Your task to perform on an android device: Search for Mexican restaurants on Maps Image 0: 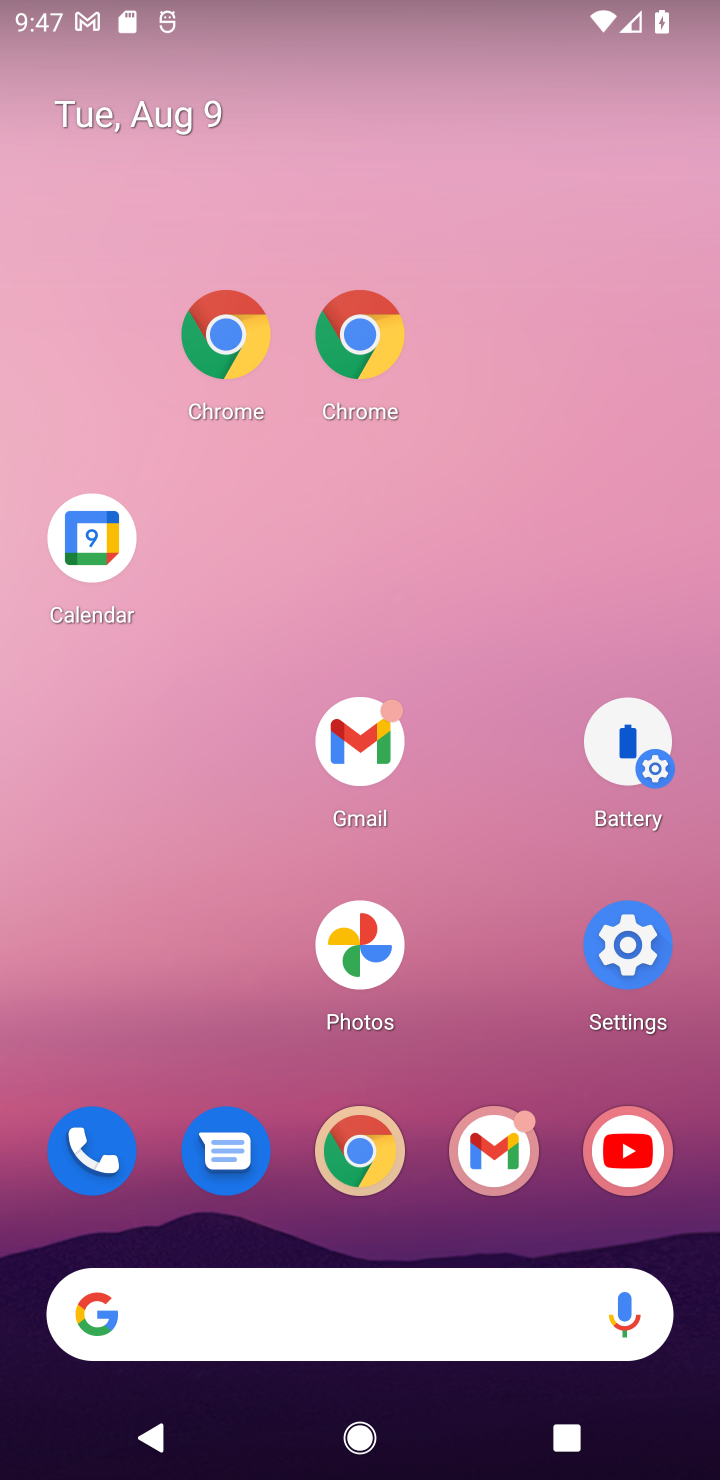
Step 0: click (340, 388)
Your task to perform on an android device: Search for Mexican restaurants on Maps Image 1: 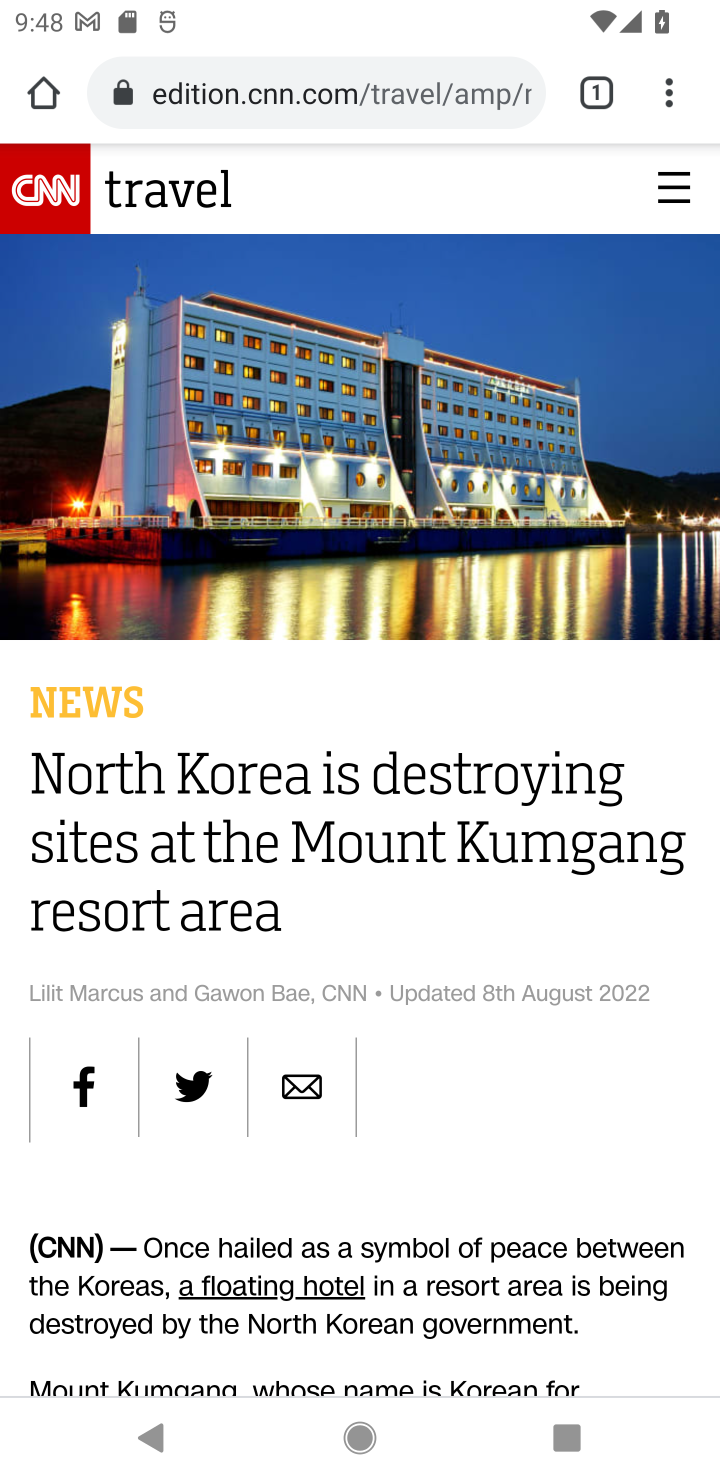
Step 1: press home button
Your task to perform on an android device: Search for Mexican restaurants on Maps Image 2: 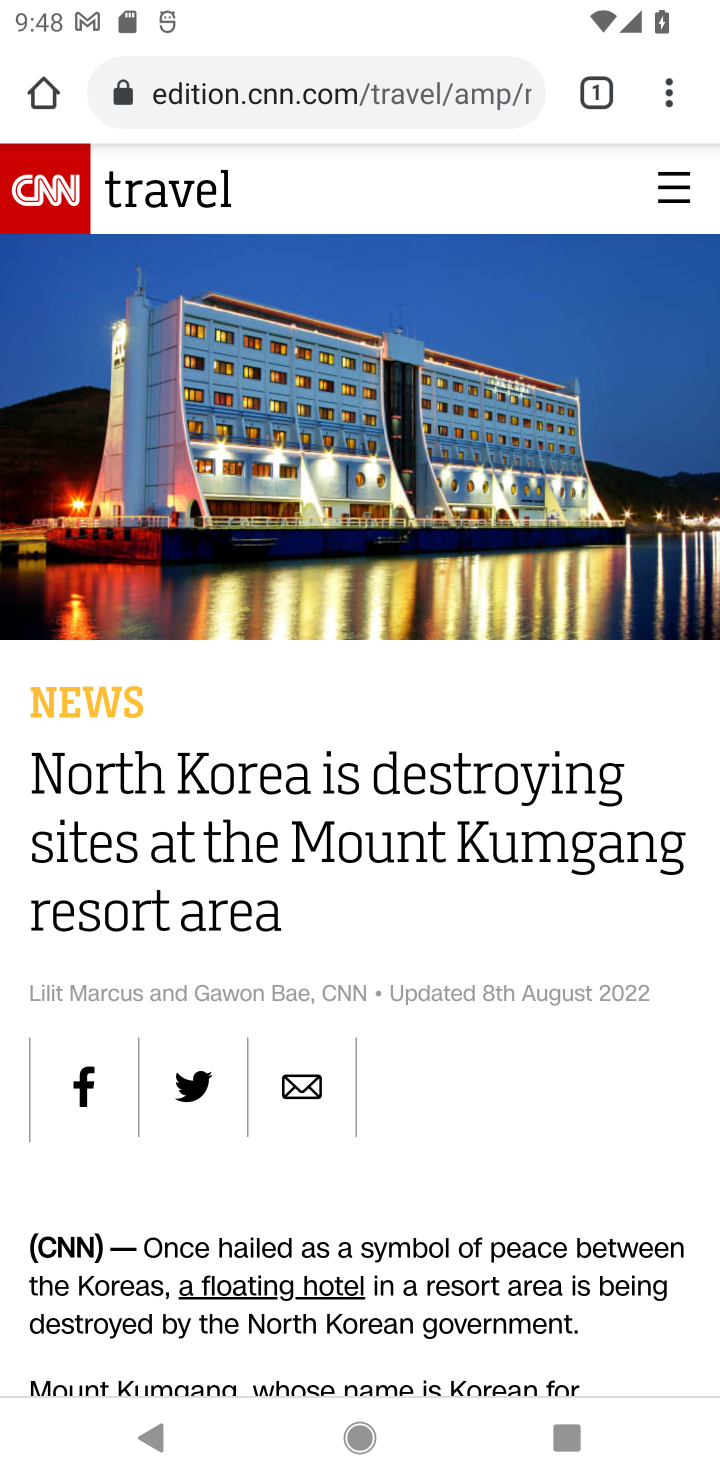
Step 2: press home button
Your task to perform on an android device: Search for Mexican restaurants on Maps Image 3: 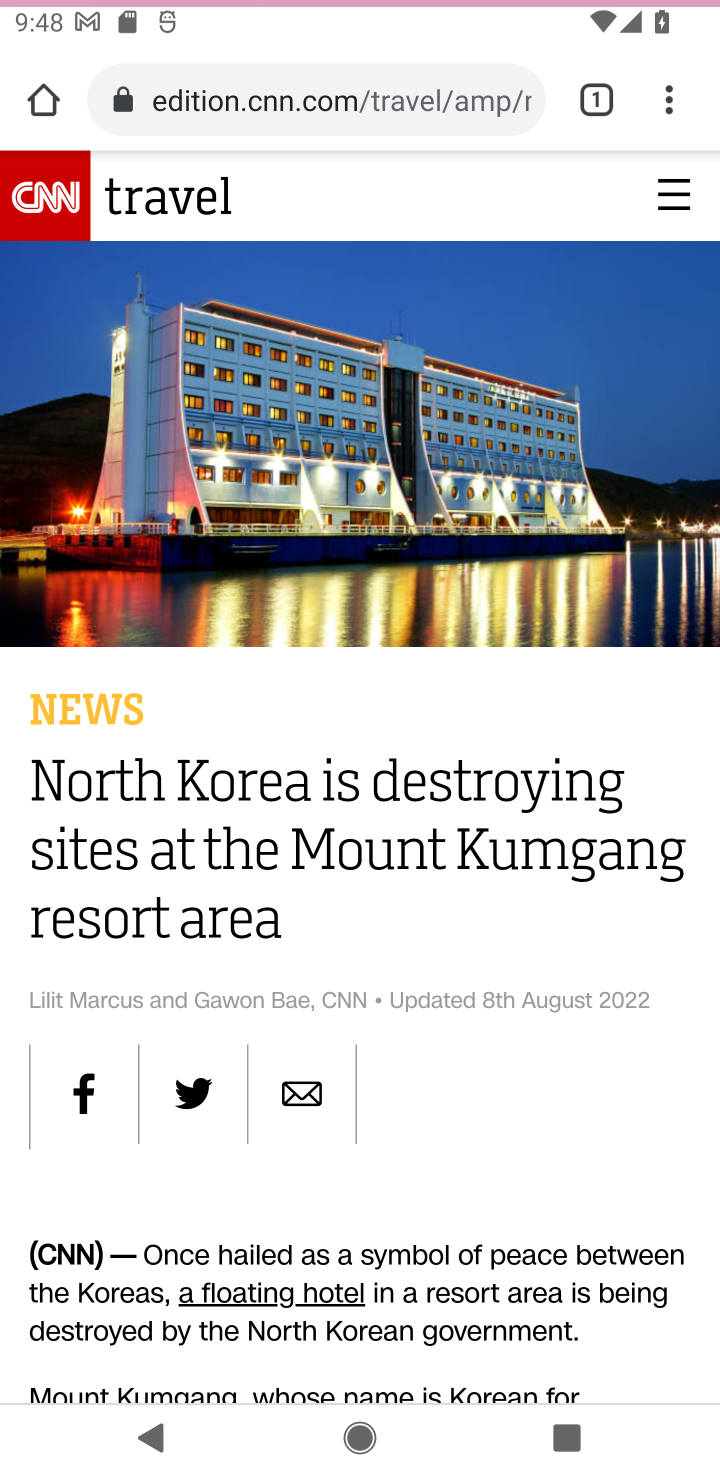
Step 3: press back button
Your task to perform on an android device: Search for Mexican restaurants on Maps Image 4: 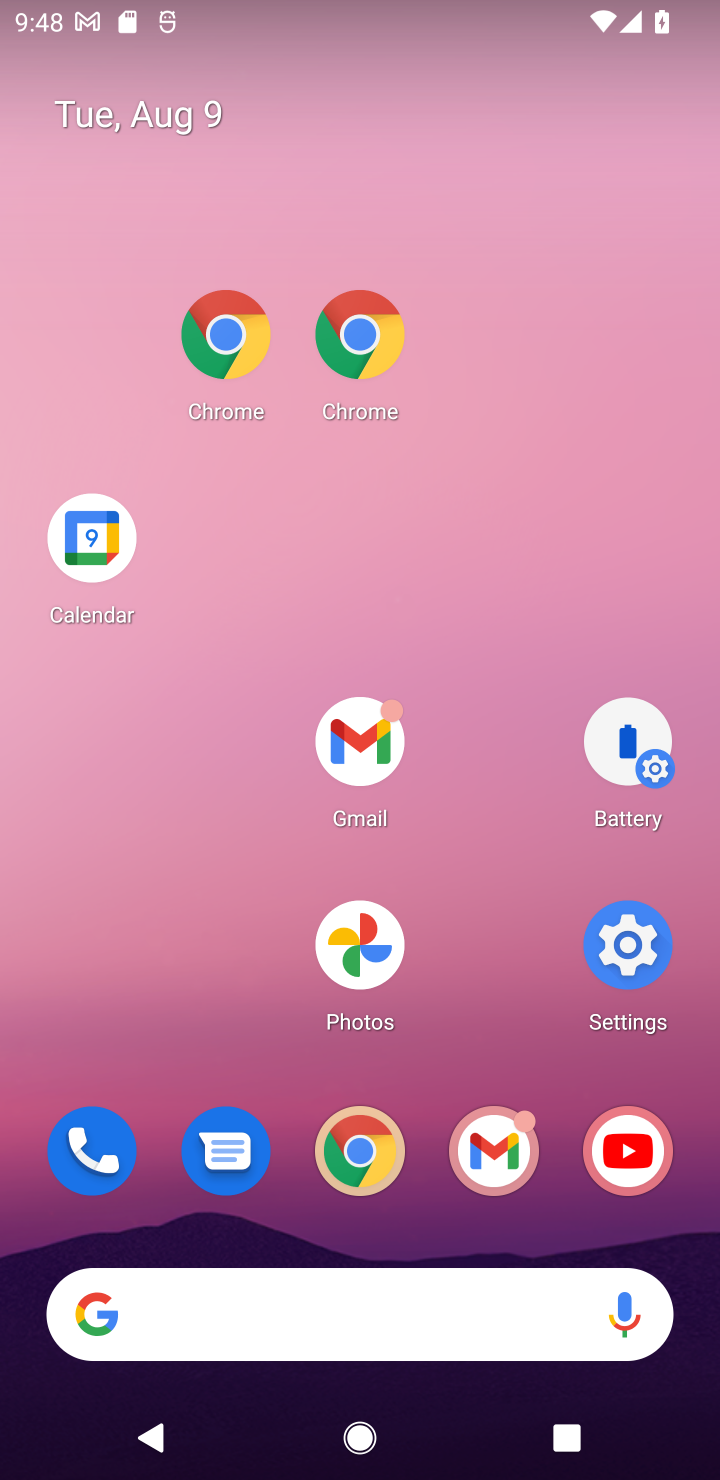
Step 4: press back button
Your task to perform on an android device: Search for Mexican restaurants on Maps Image 5: 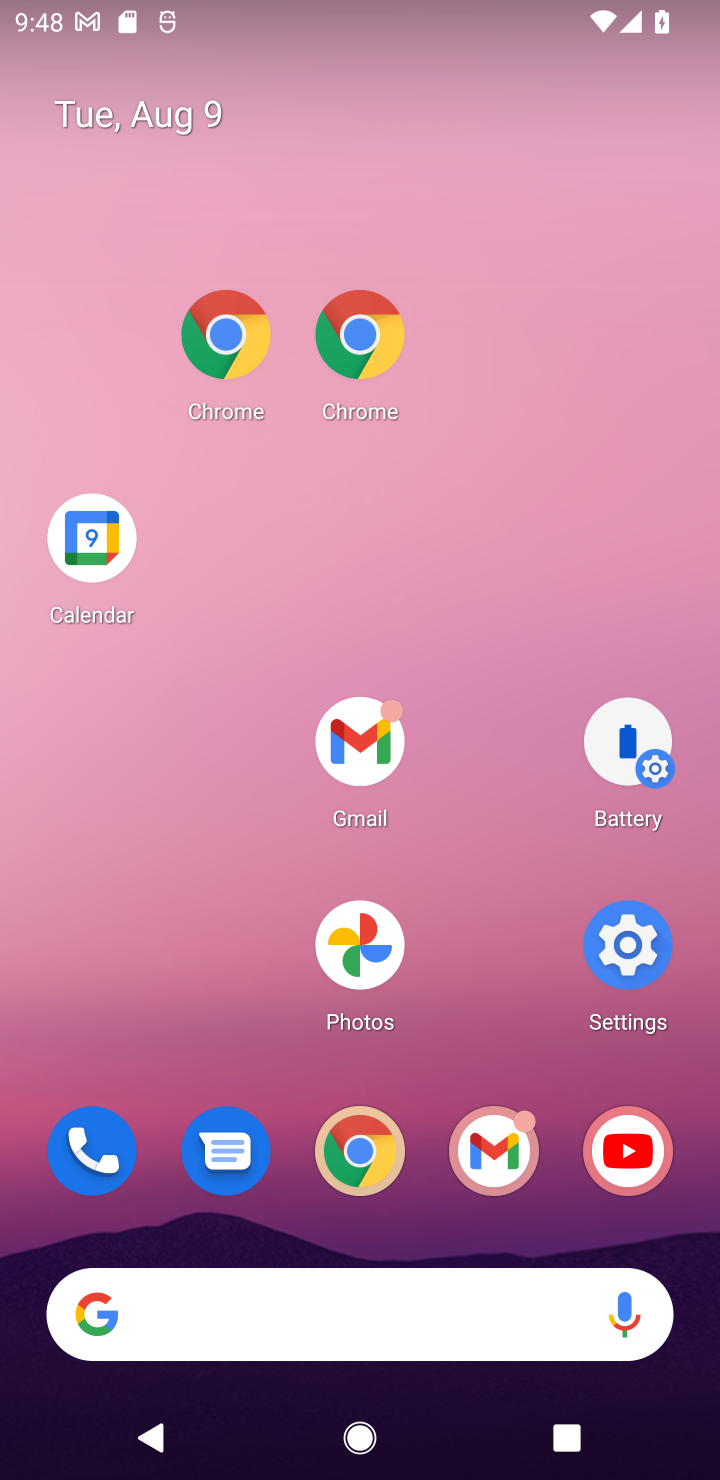
Step 5: drag from (305, 624) to (230, 748)
Your task to perform on an android device: Search for Mexican restaurants on Maps Image 6: 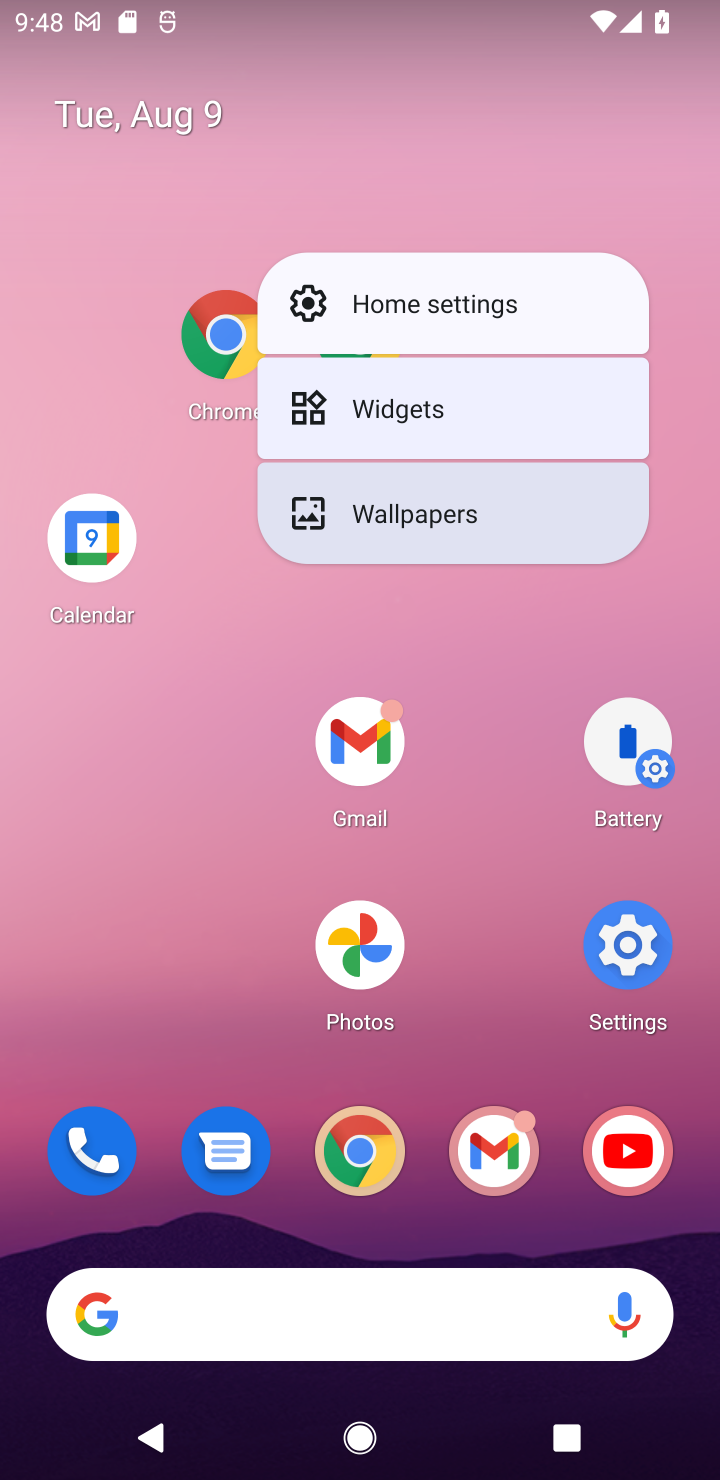
Step 6: drag from (396, 630) to (465, 628)
Your task to perform on an android device: Search for Mexican restaurants on Maps Image 7: 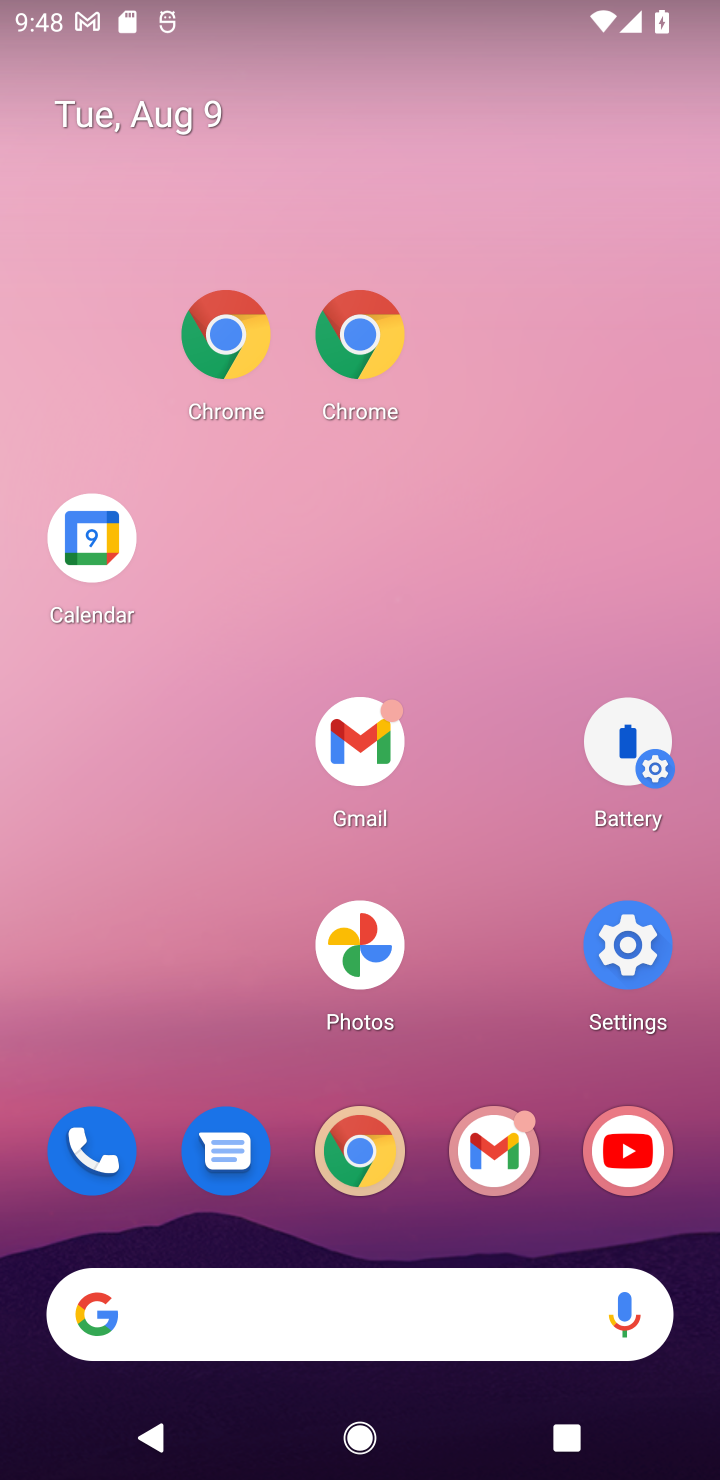
Step 7: press back button
Your task to perform on an android device: Search for Mexican restaurants on Maps Image 8: 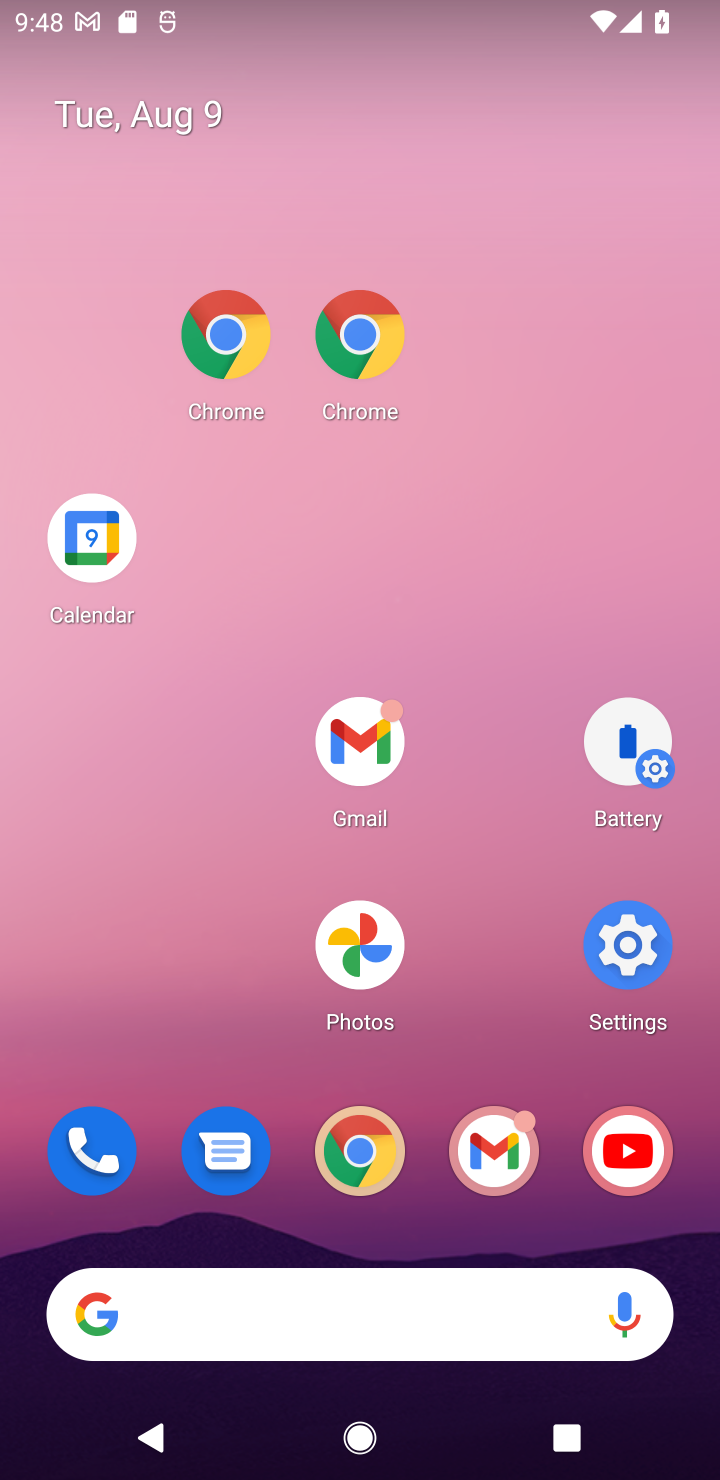
Step 8: press home button
Your task to perform on an android device: Search for Mexican restaurants on Maps Image 9: 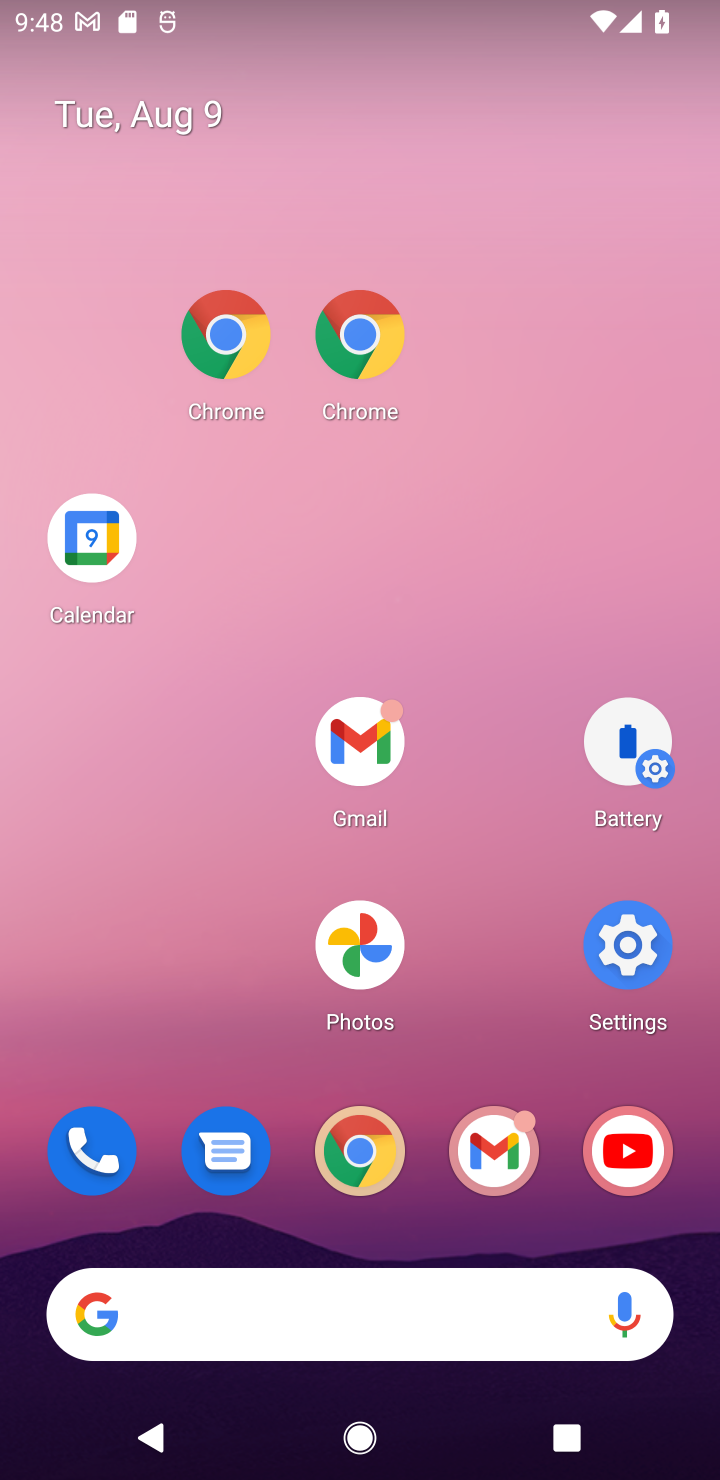
Step 9: drag from (343, 51) to (179, 229)
Your task to perform on an android device: Search for Mexican restaurants on Maps Image 10: 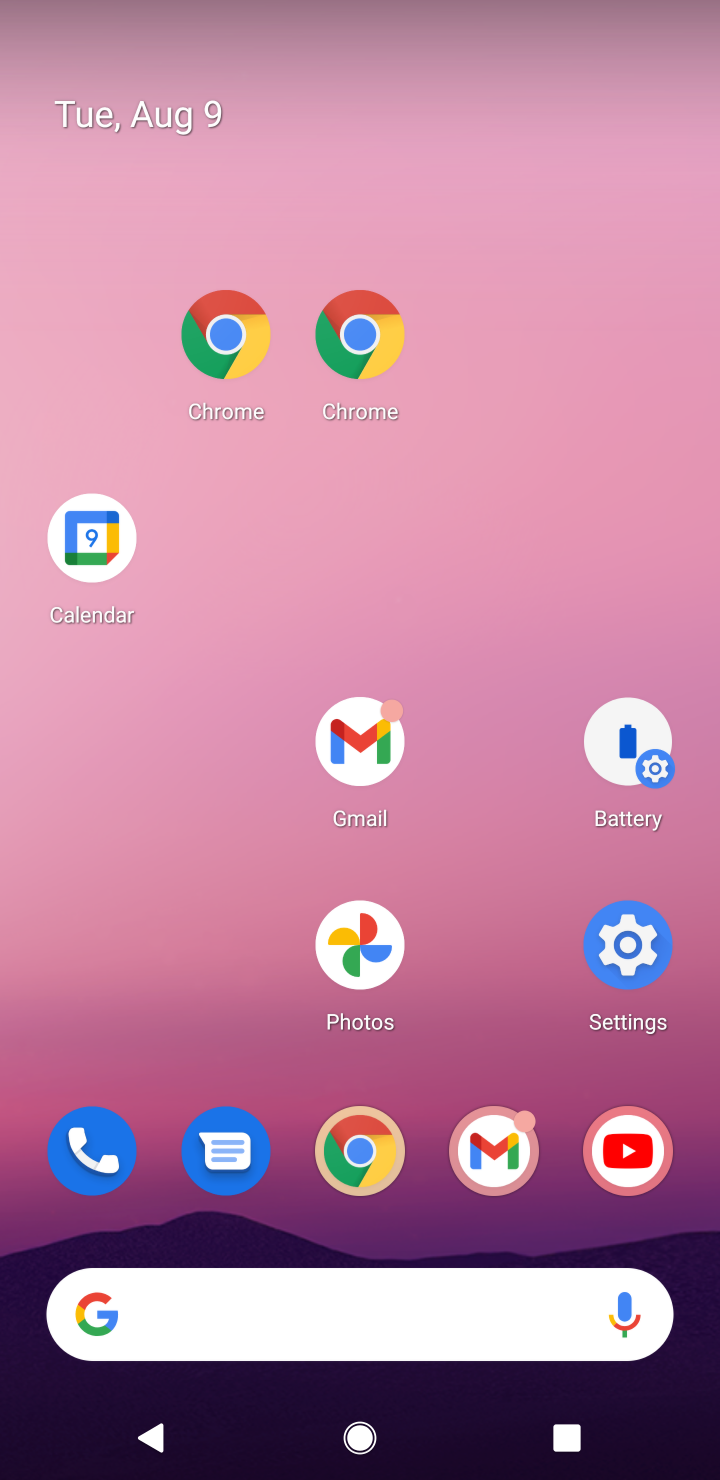
Step 10: click (421, 308)
Your task to perform on an android device: Search for Mexican restaurants on Maps Image 11: 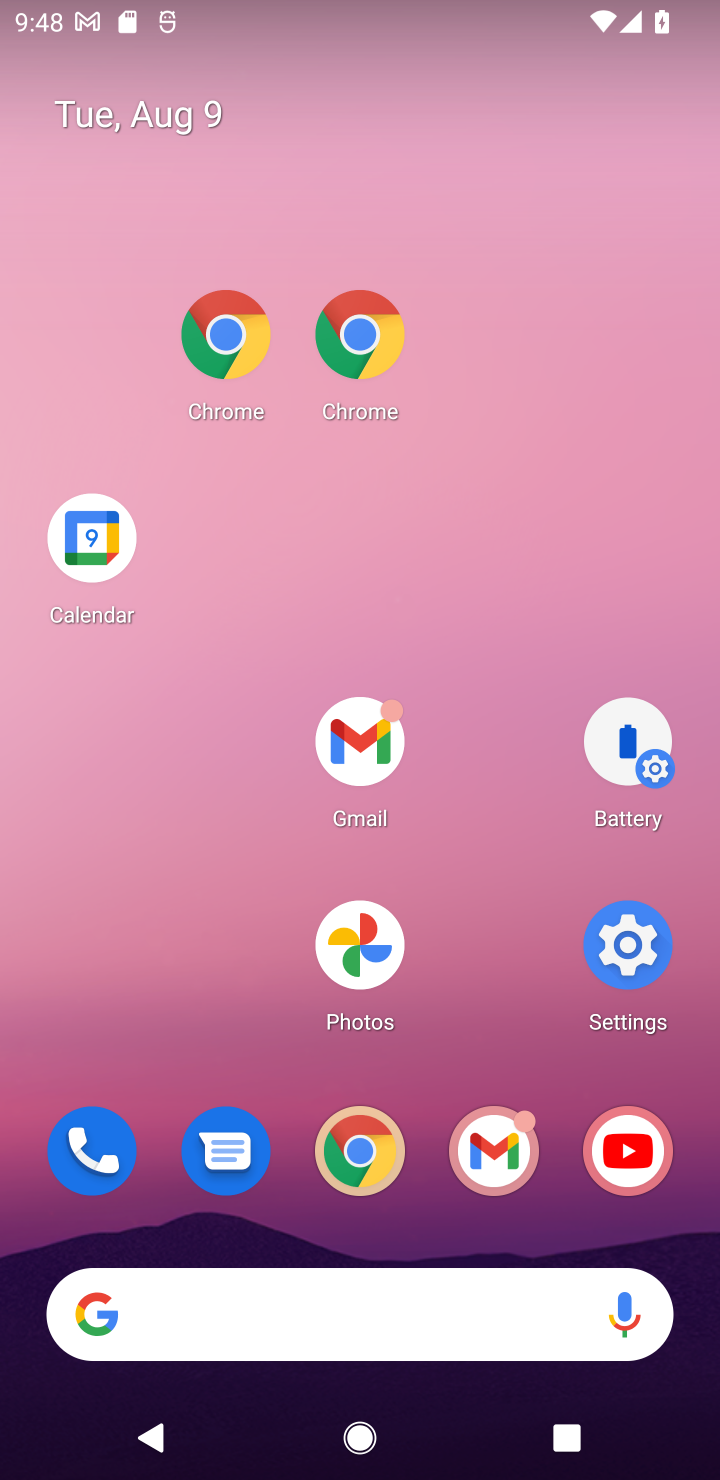
Step 11: press back button
Your task to perform on an android device: Search for Mexican restaurants on Maps Image 12: 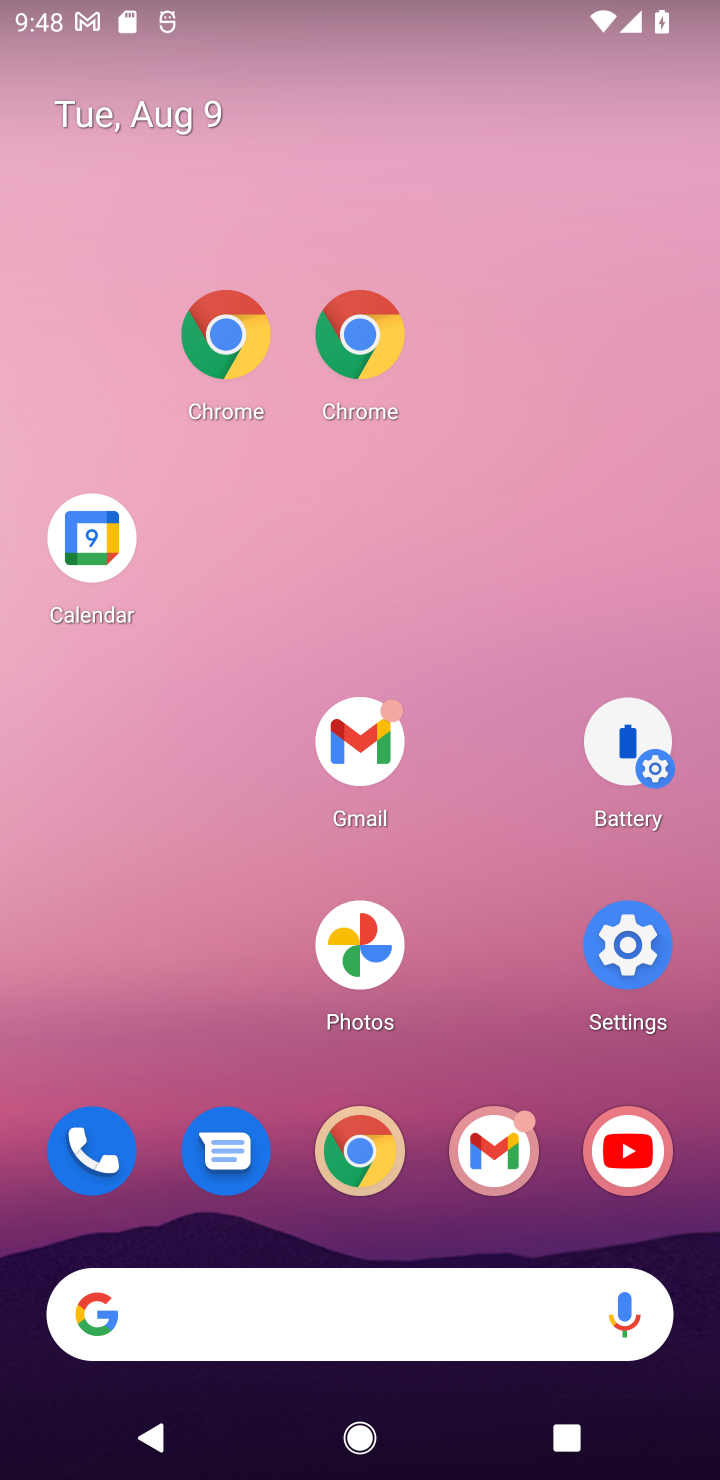
Step 12: press back button
Your task to perform on an android device: Search for Mexican restaurants on Maps Image 13: 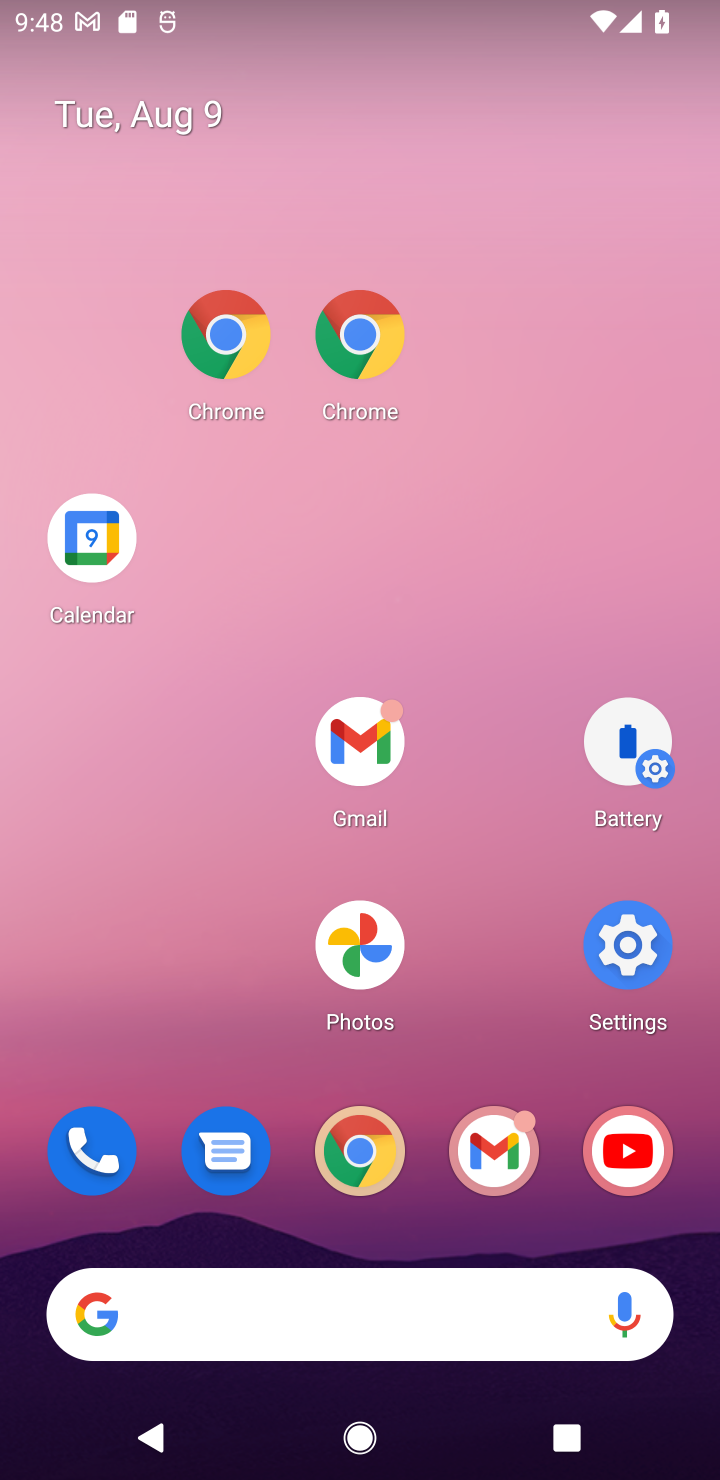
Step 13: drag from (528, 1027) to (391, 448)
Your task to perform on an android device: Search for Mexican restaurants on Maps Image 14: 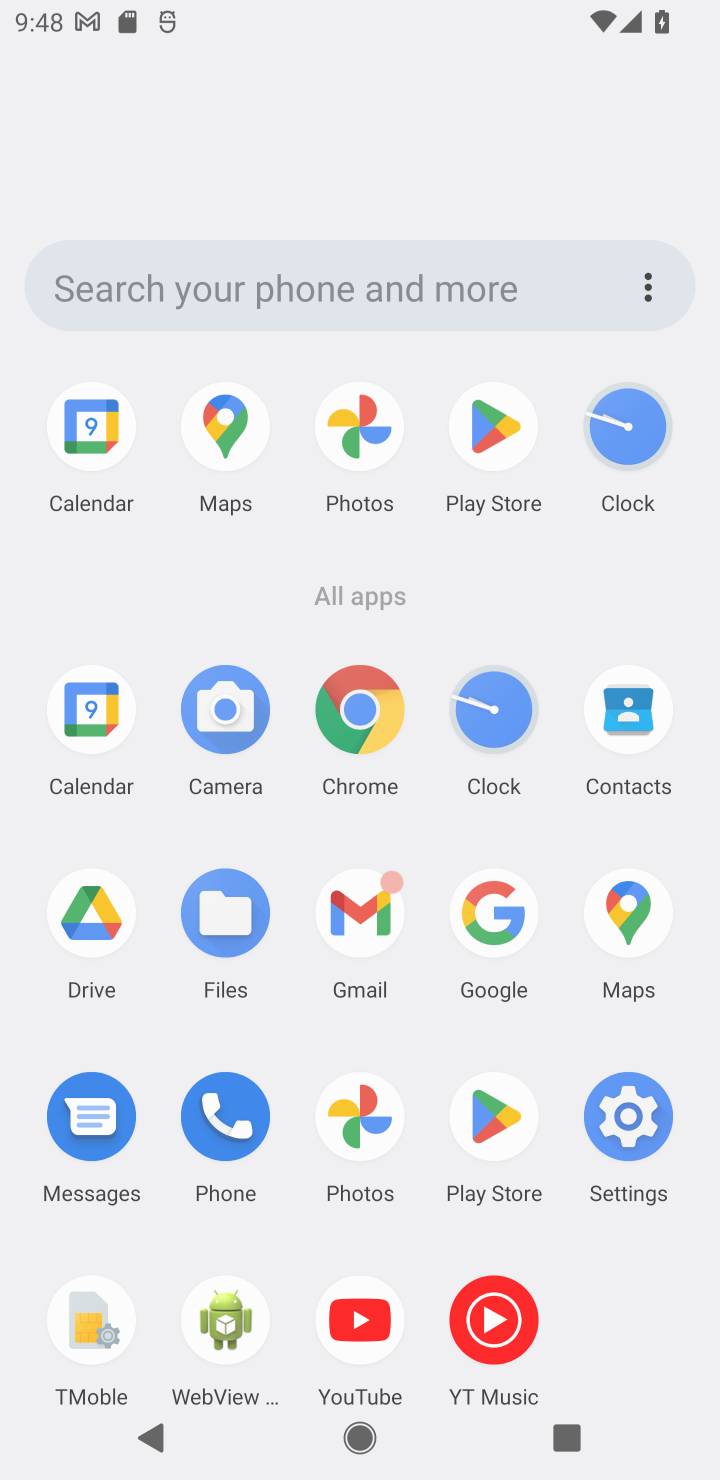
Step 14: click (301, 571)
Your task to perform on an android device: Search for Mexican restaurants on Maps Image 15: 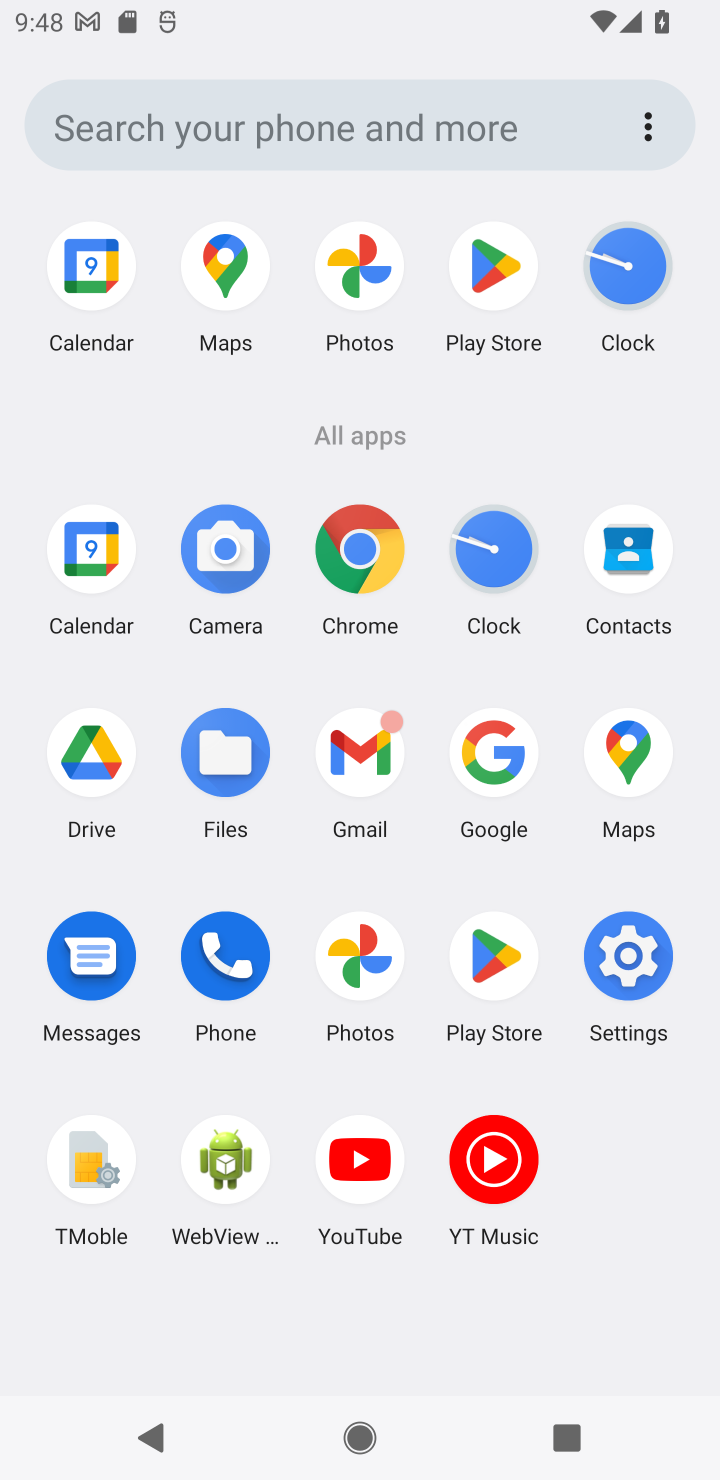
Step 15: click (621, 752)
Your task to perform on an android device: Search for Mexican restaurants on Maps Image 16: 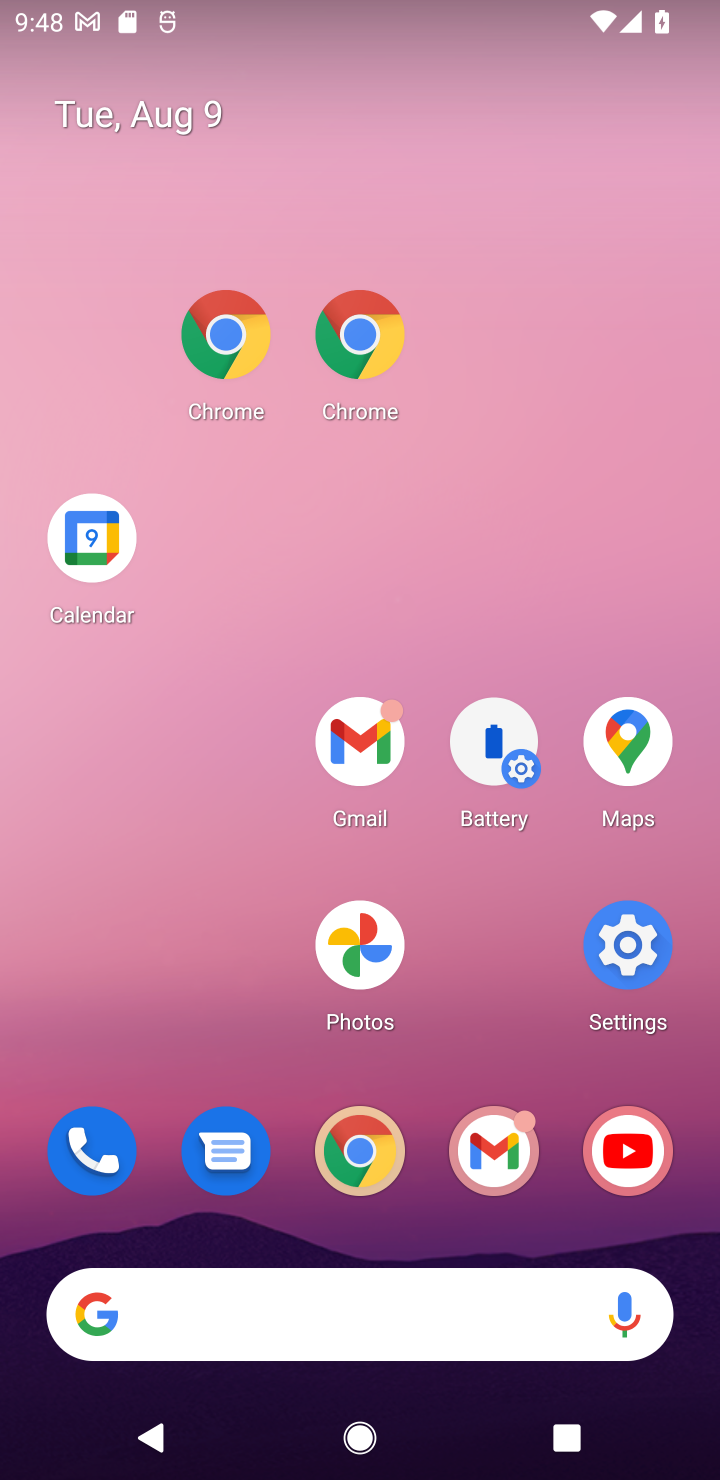
Step 16: click (589, 744)
Your task to perform on an android device: Search for Mexican restaurants on Maps Image 17: 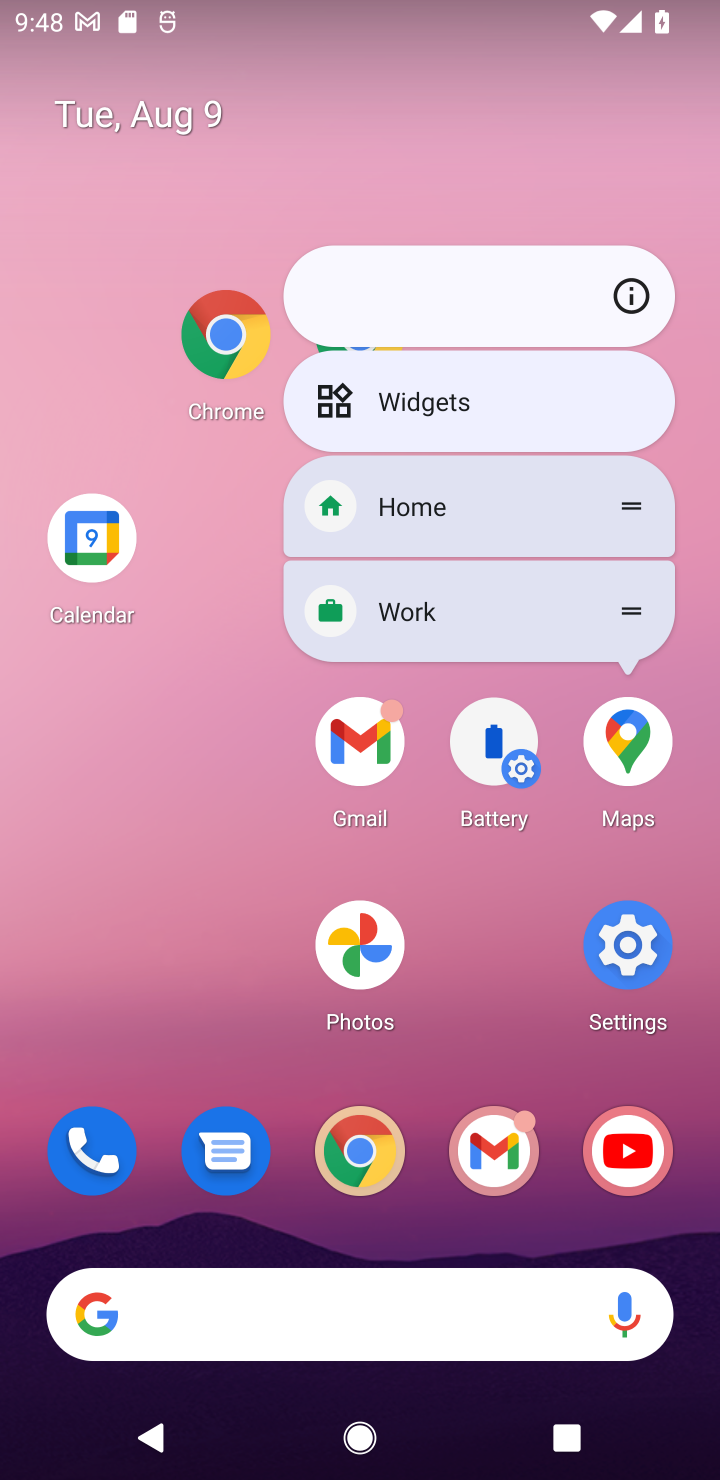
Step 17: click (453, 590)
Your task to perform on an android device: Search for Mexican restaurants on Maps Image 18: 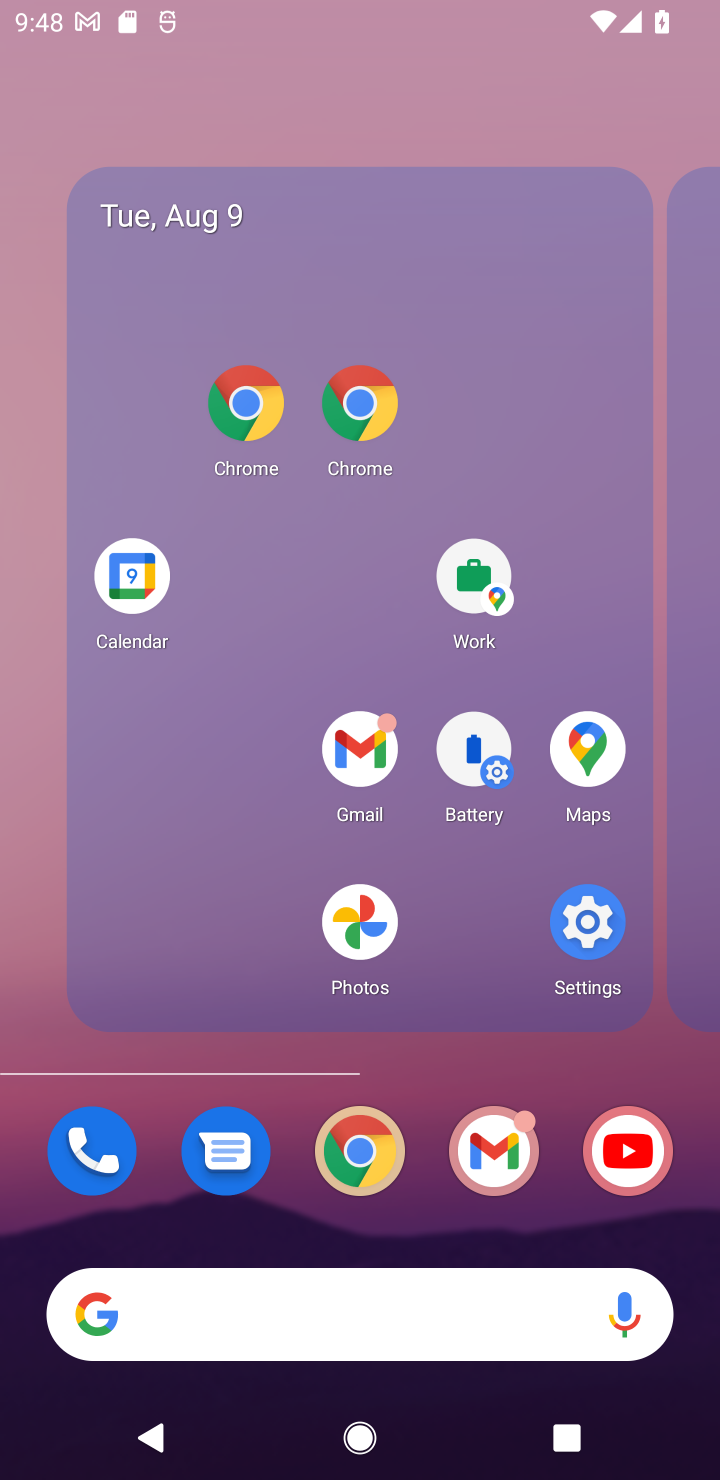
Step 18: drag from (243, 292) to (368, 481)
Your task to perform on an android device: Search for Mexican restaurants on Maps Image 19: 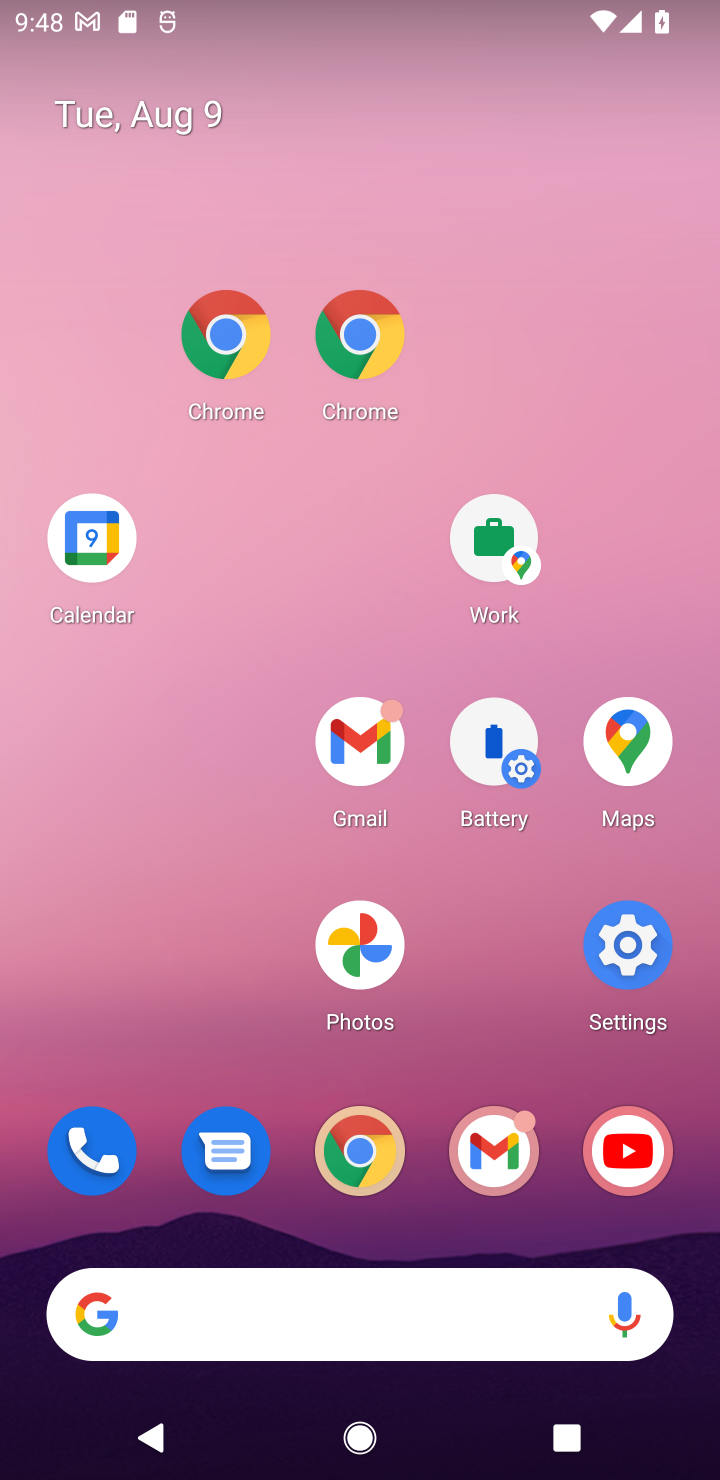
Step 19: drag from (410, 1120) to (341, 329)
Your task to perform on an android device: Search for Mexican restaurants on Maps Image 20: 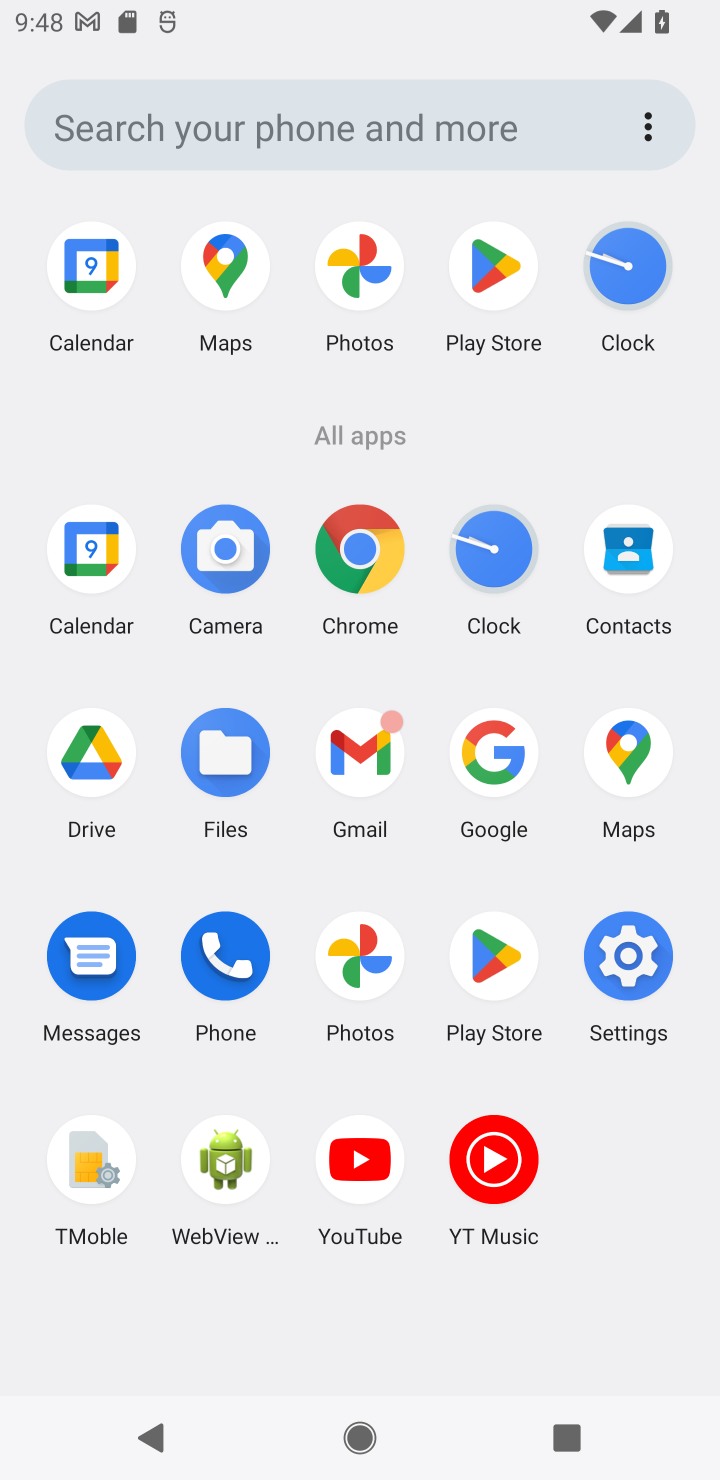
Step 20: click (636, 752)
Your task to perform on an android device: Search for Mexican restaurants on Maps Image 21: 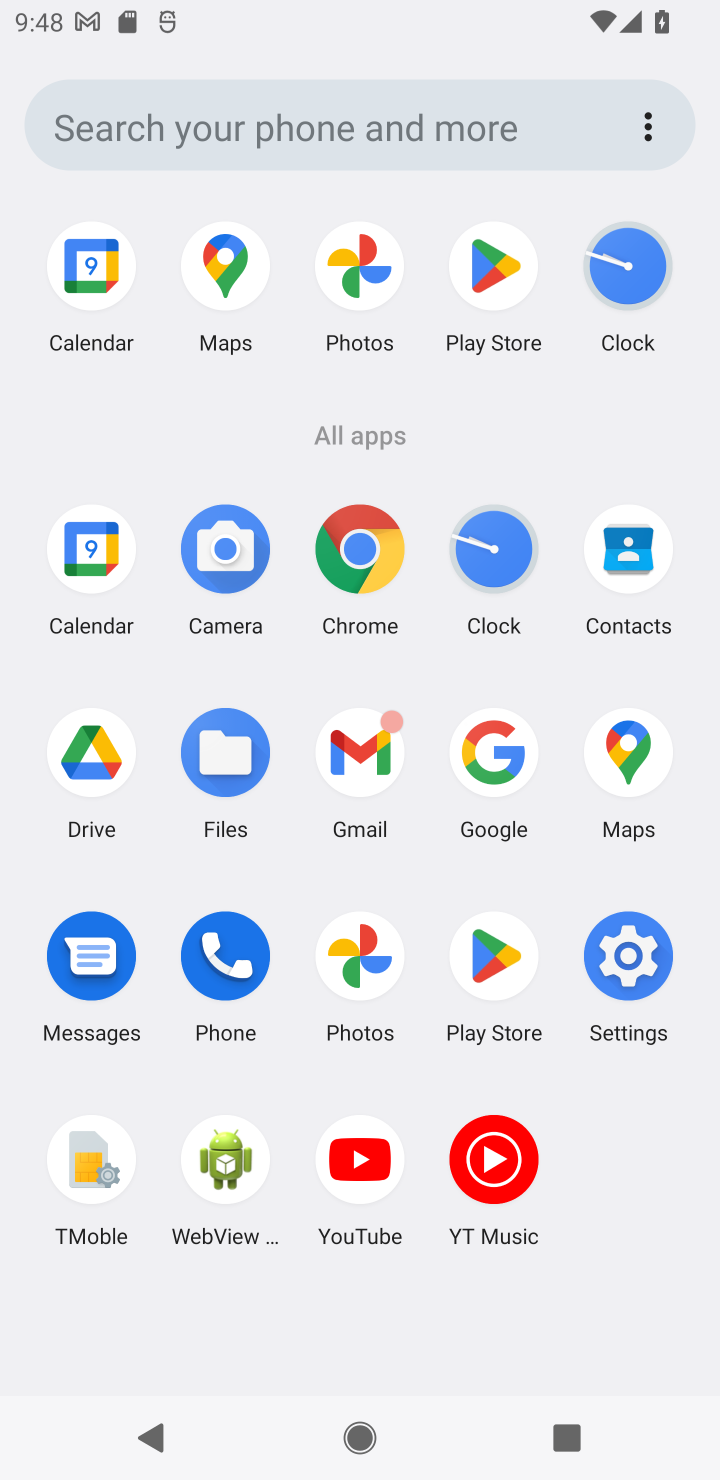
Step 21: click (632, 756)
Your task to perform on an android device: Search for Mexican restaurants on Maps Image 22: 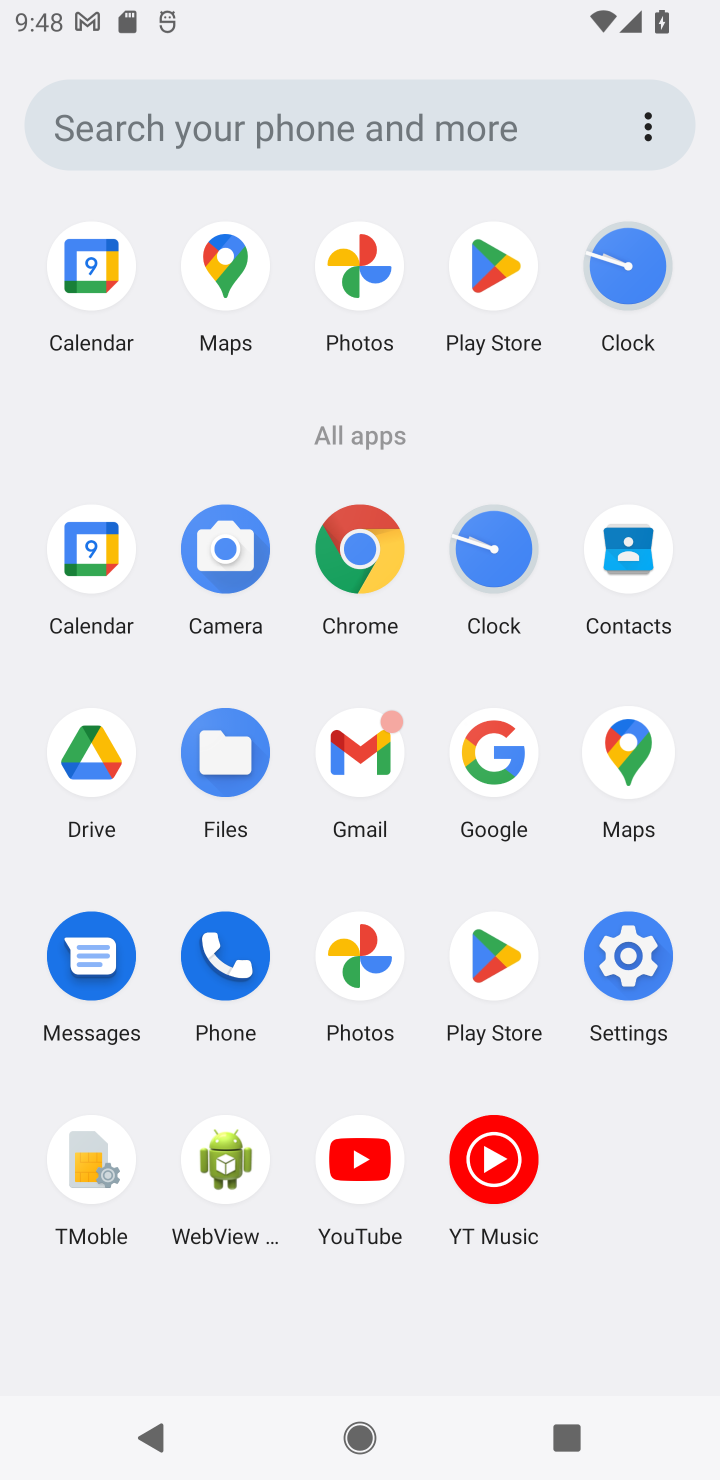
Step 22: click (632, 756)
Your task to perform on an android device: Search for Mexican restaurants on Maps Image 23: 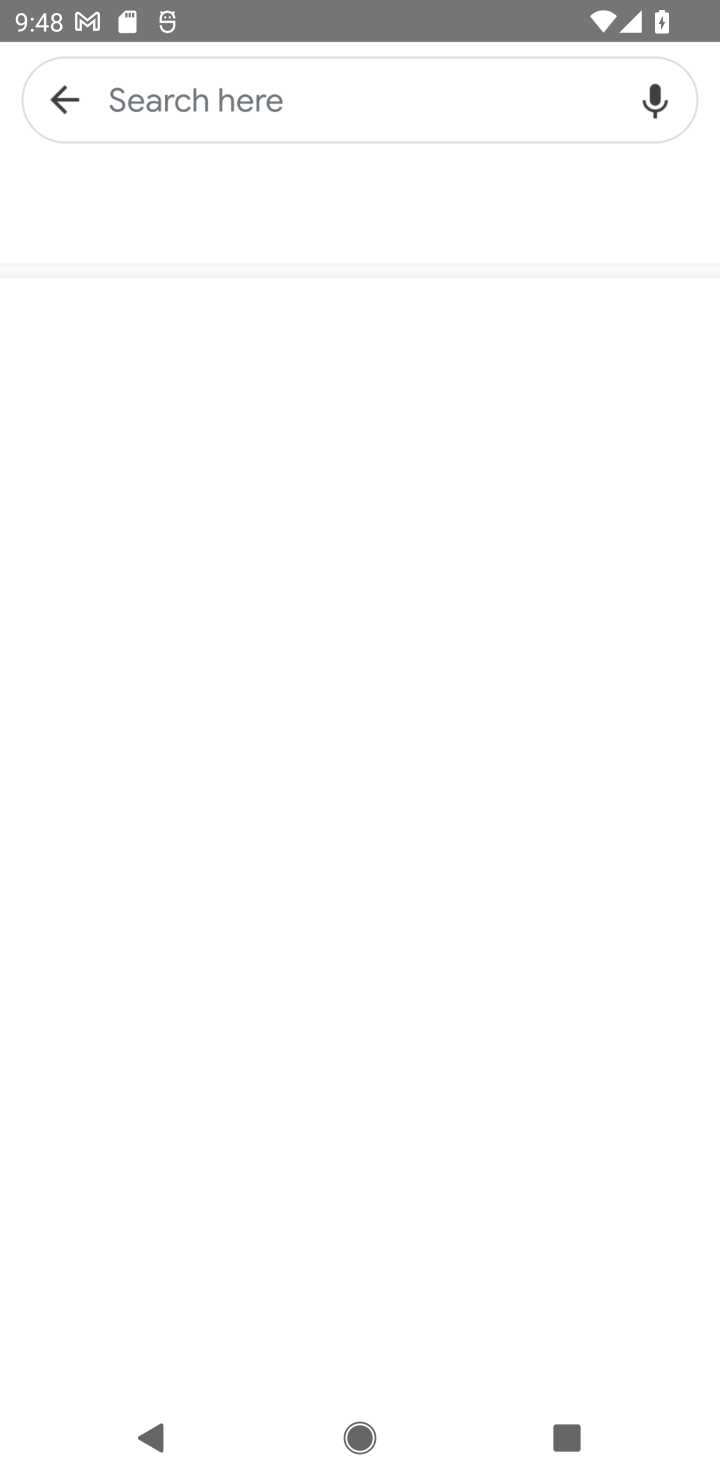
Step 23: click (630, 758)
Your task to perform on an android device: Search for Mexican restaurants on Maps Image 24: 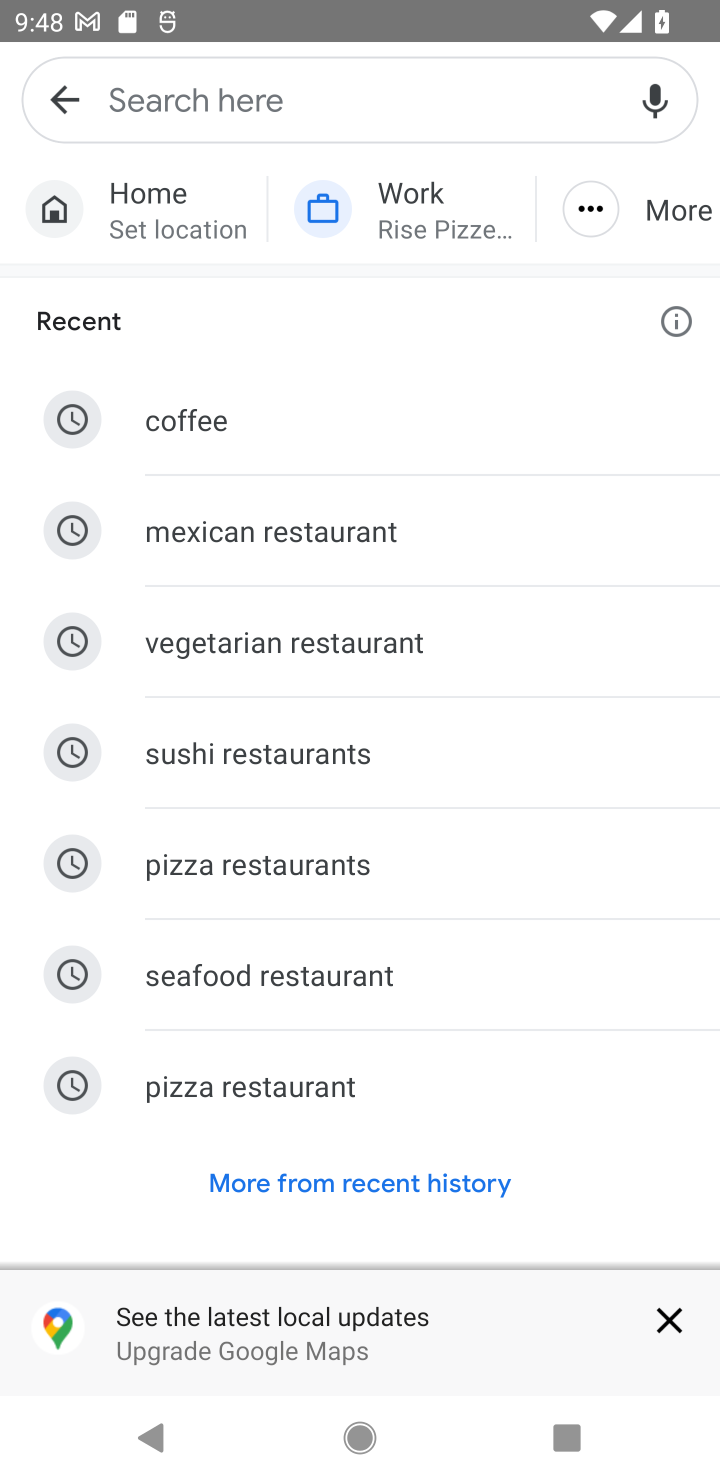
Step 24: click (276, 564)
Your task to perform on an android device: Search for Mexican restaurants on Maps Image 25: 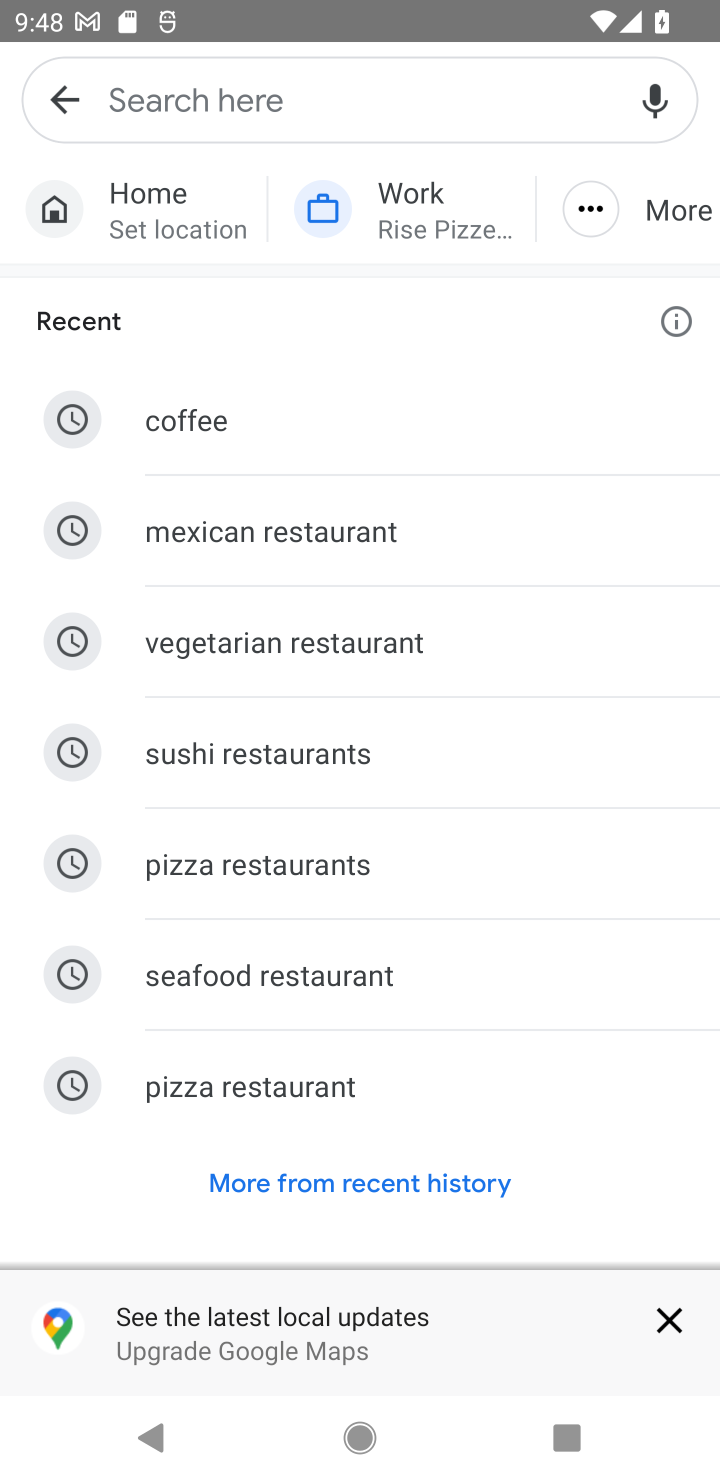
Step 25: click (274, 552)
Your task to perform on an android device: Search for Mexican restaurants on Maps Image 26: 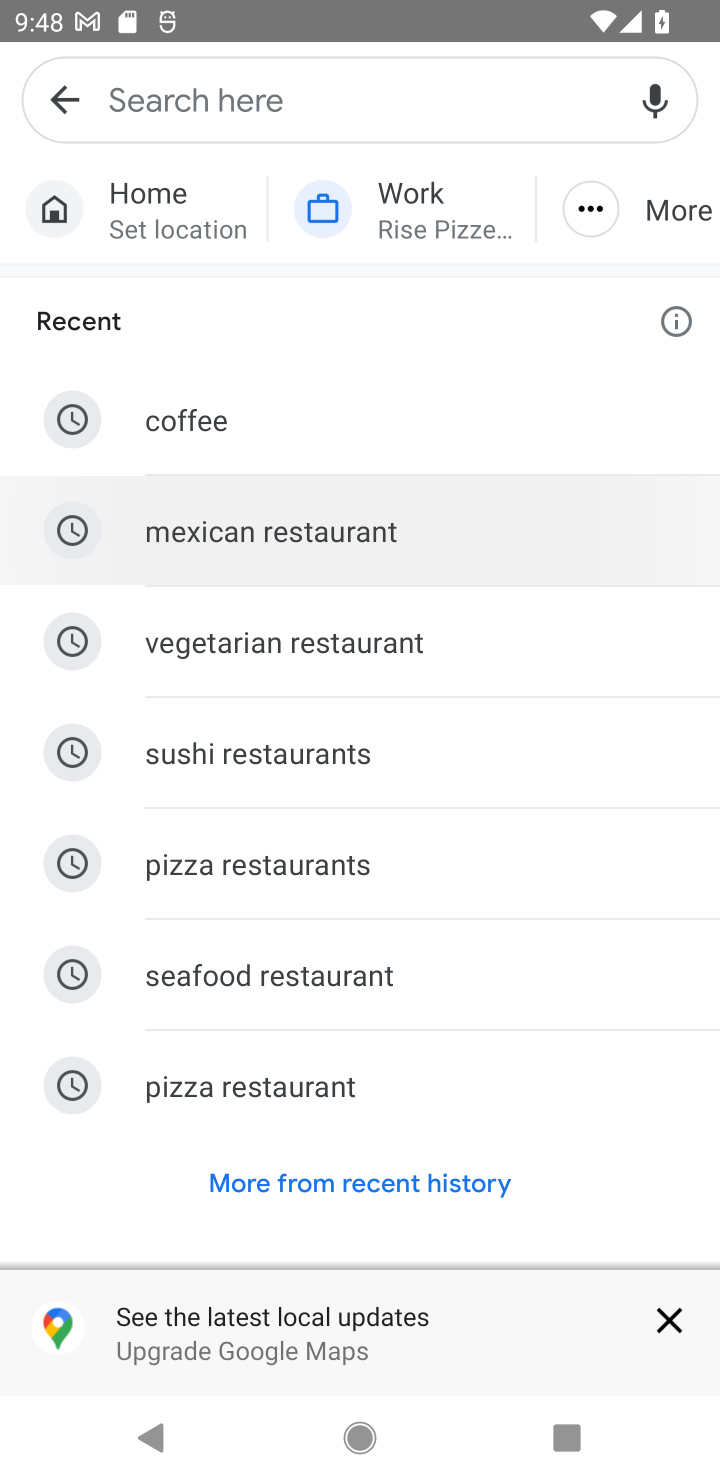
Step 26: task complete